Your task to perform on an android device: turn off airplane mode Image 0: 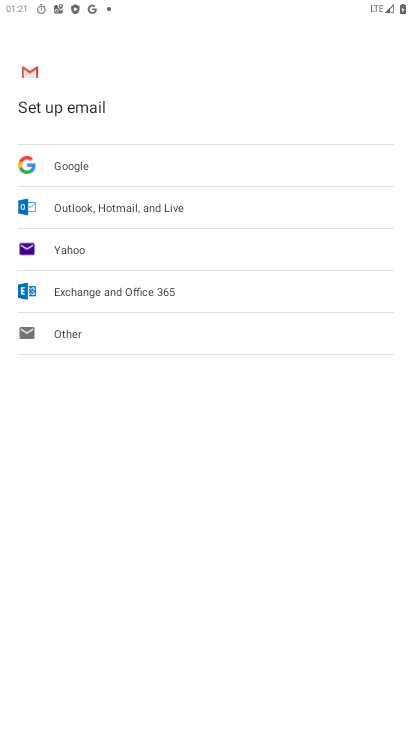
Step 0: press home button
Your task to perform on an android device: turn off airplane mode Image 1: 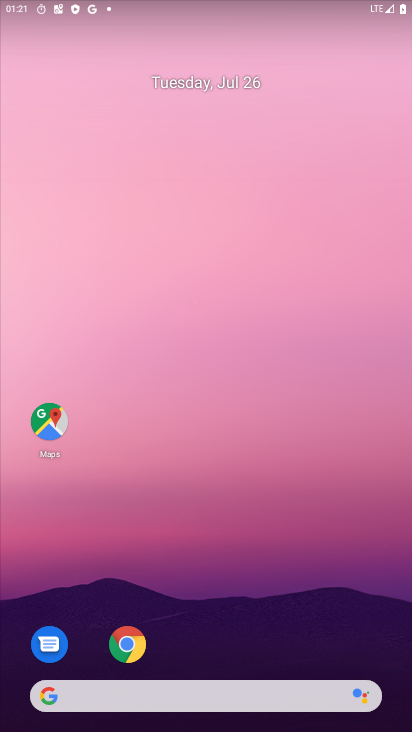
Step 1: drag from (236, 641) to (232, 0)
Your task to perform on an android device: turn off airplane mode Image 2: 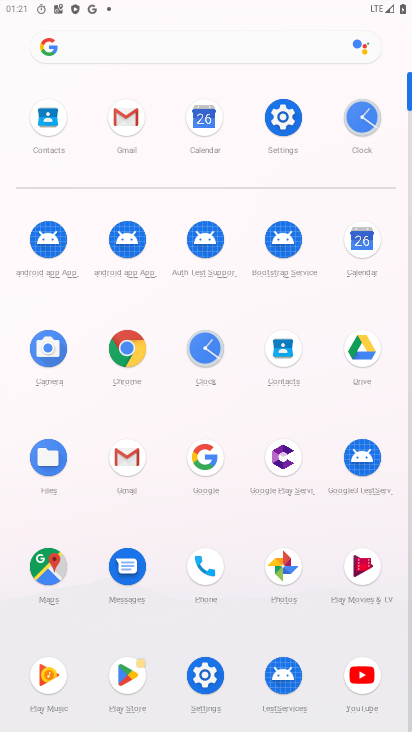
Step 2: click (284, 129)
Your task to perform on an android device: turn off airplane mode Image 3: 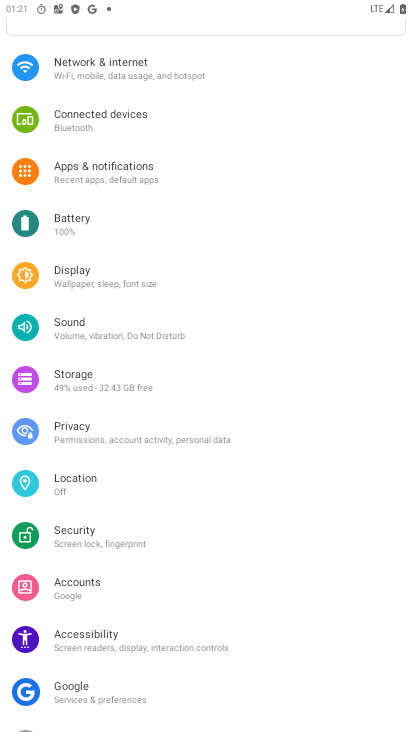
Step 3: click (86, 75)
Your task to perform on an android device: turn off airplane mode Image 4: 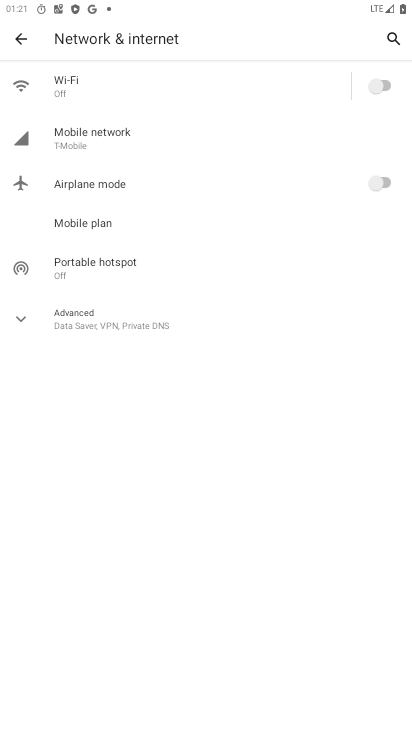
Step 4: task complete